Your task to perform on an android device: all mails in gmail Image 0: 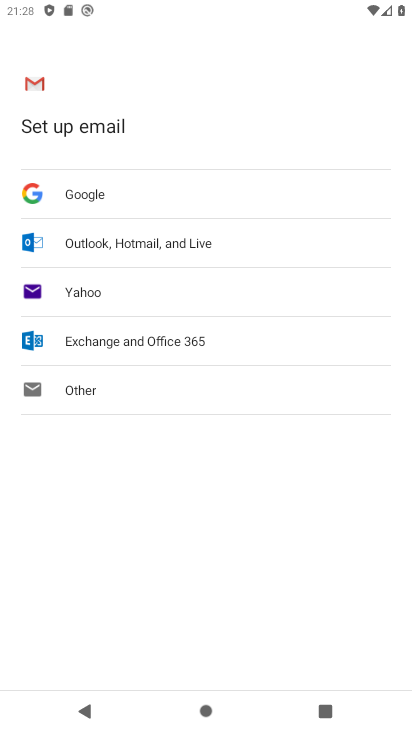
Step 0: press back button
Your task to perform on an android device: all mails in gmail Image 1: 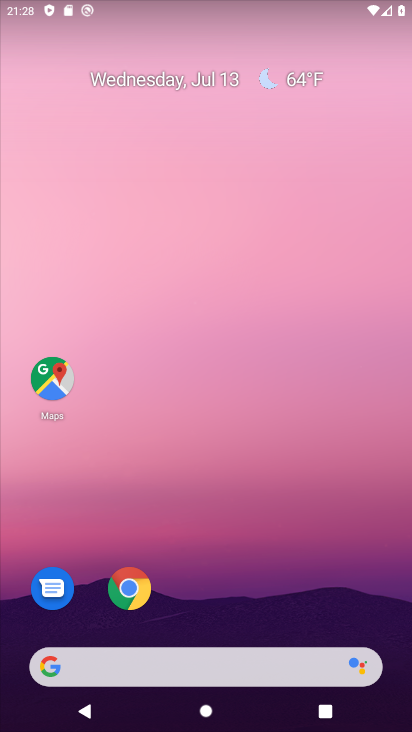
Step 1: drag from (240, 600) to (314, 14)
Your task to perform on an android device: all mails in gmail Image 2: 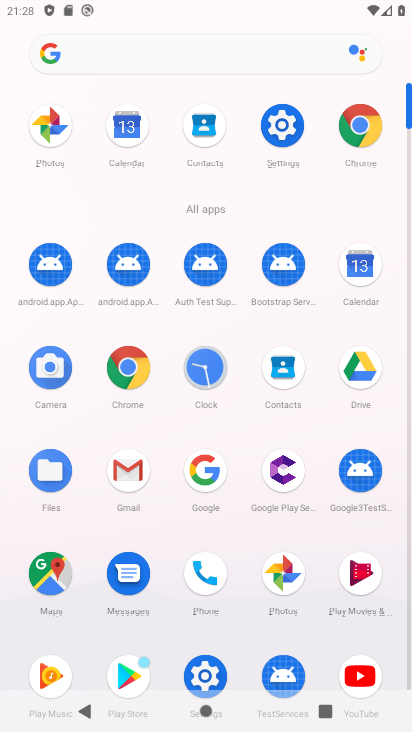
Step 2: click (132, 485)
Your task to perform on an android device: all mails in gmail Image 3: 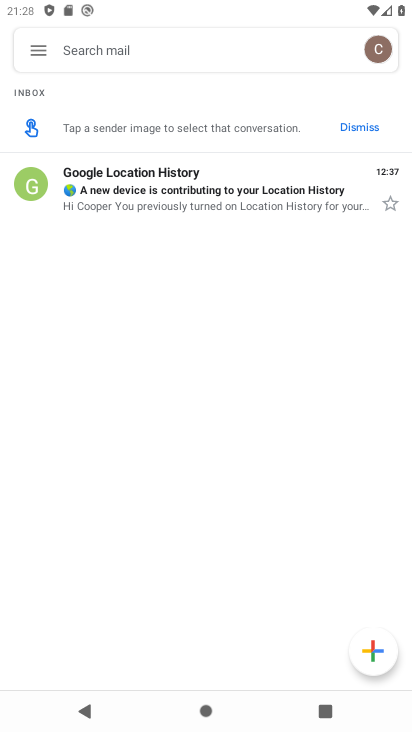
Step 3: click (34, 51)
Your task to perform on an android device: all mails in gmail Image 4: 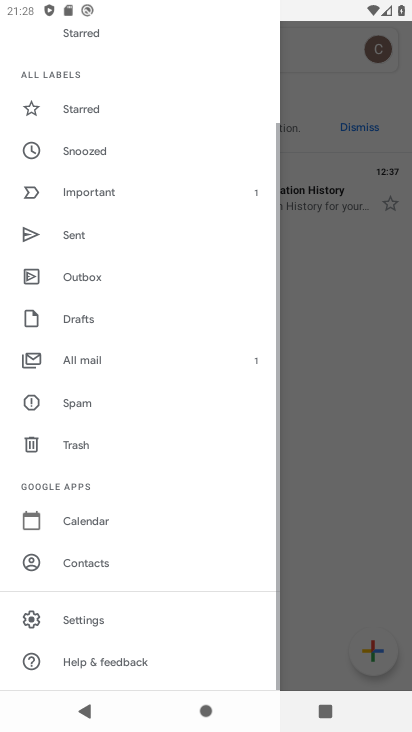
Step 4: click (128, 374)
Your task to perform on an android device: all mails in gmail Image 5: 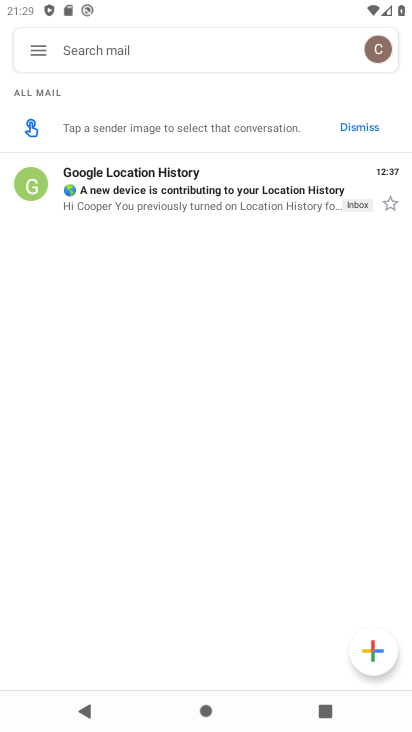
Step 5: task complete